Your task to perform on an android device: turn notification dots off Image 0: 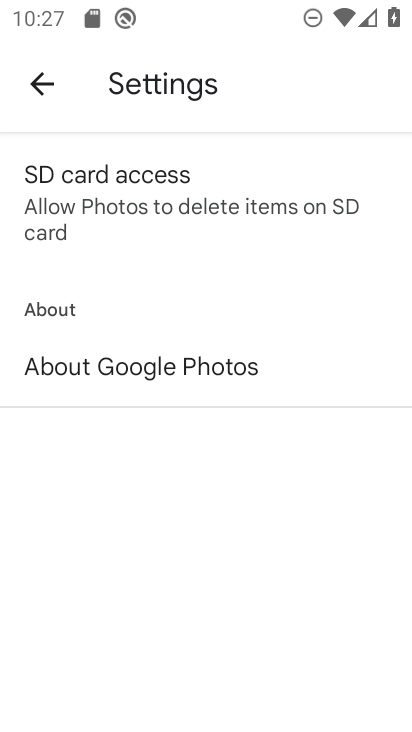
Step 0: press home button
Your task to perform on an android device: turn notification dots off Image 1: 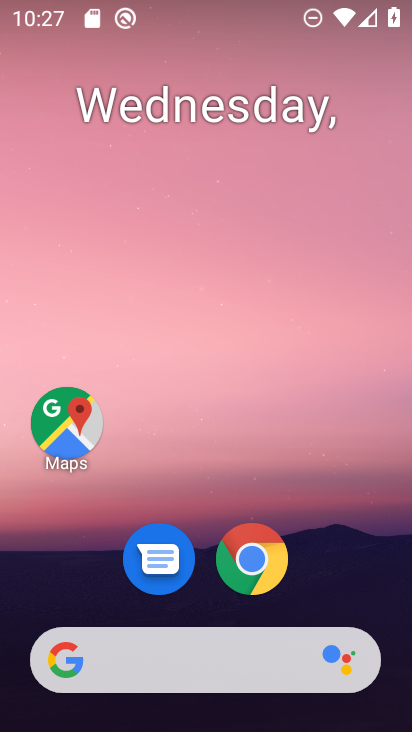
Step 1: drag from (334, 586) to (352, 296)
Your task to perform on an android device: turn notification dots off Image 2: 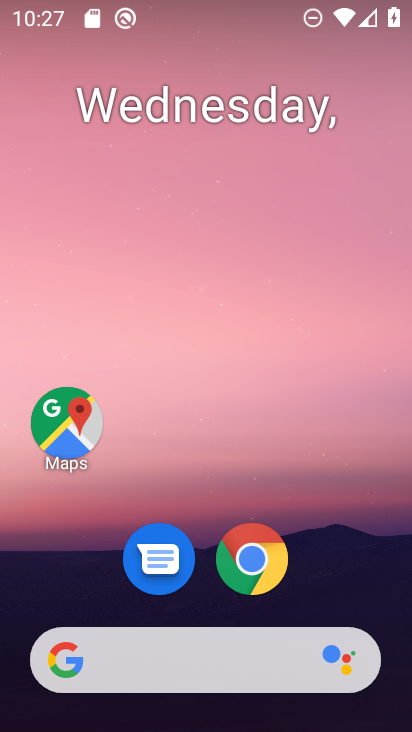
Step 2: drag from (370, 482) to (379, 106)
Your task to perform on an android device: turn notification dots off Image 3: 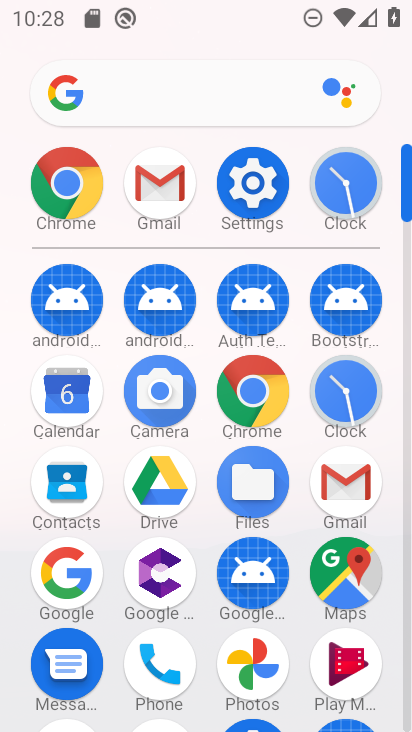
Step 3: click (251, 204)
Your task to perform on an android device: turn notification dots off Image 4: 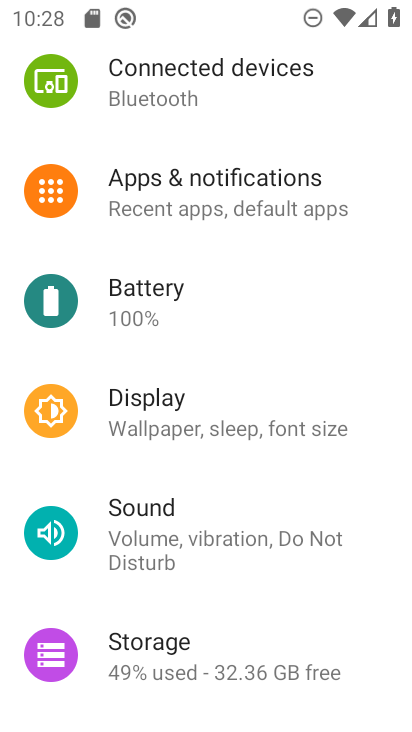
Step 4: drag from (347, 333) to (355, 420)
Your task to perform on an android device: turn notification dots off Image 5: 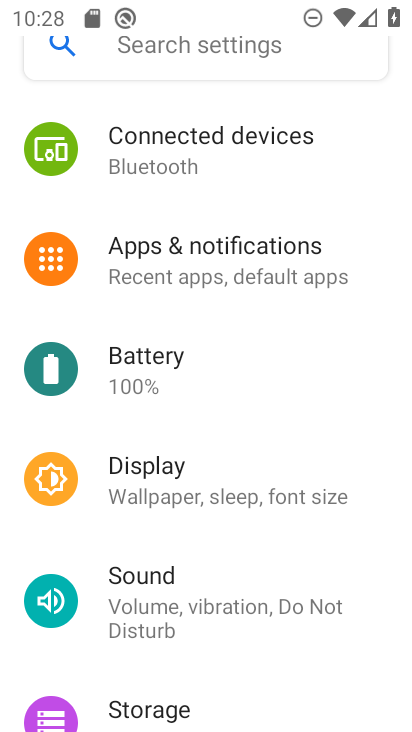
Step 5: drag from (376, 294) to (375, 392)
Your task to perform on an android device: turn notification dots off Image 6: 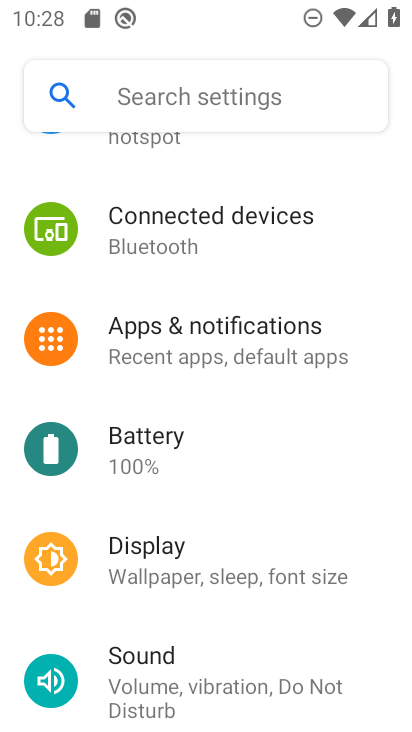
Step 6: drag from (364, 278) to (364, 366)
Your task to perform on an android device: turn notification dots off Image 7: 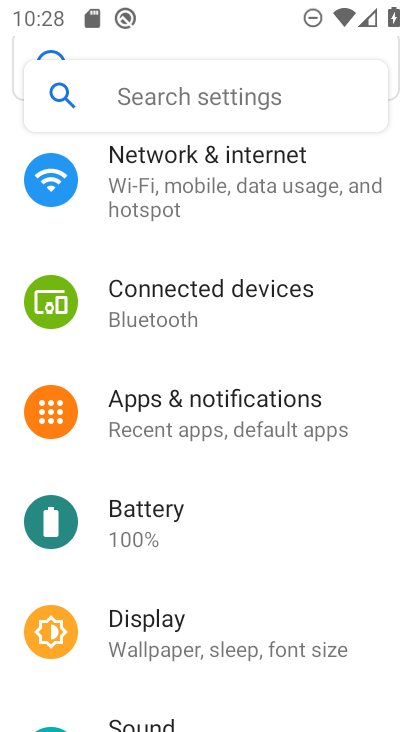
Step 7: drag from (370, 270) to (383, 407)
Your task to perform on an android device: turn notification dots off Image 8: 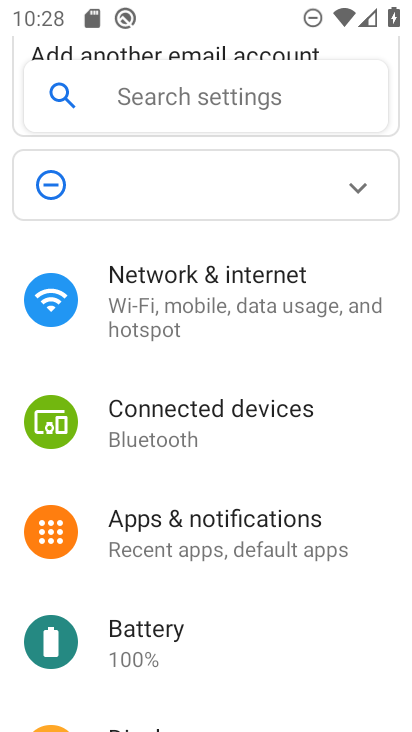
Step 8: click (303, 553)
Your task to perform on an android device: turn notification dots off Image 9: 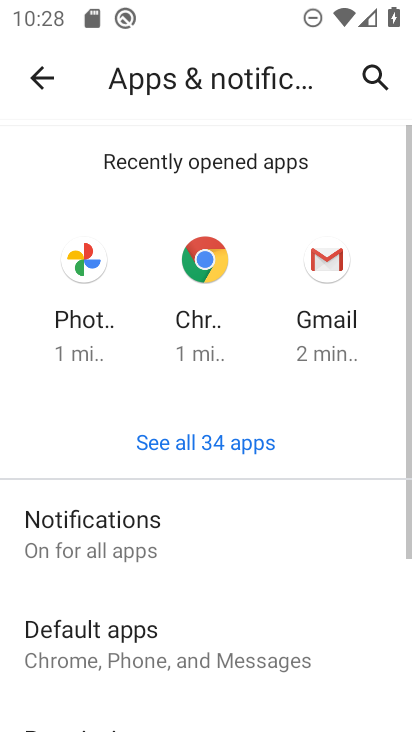
Step 9: drag from (346, 561) to (347, 419)
Your task to perform on an android device: turn notification dots off Image 10: 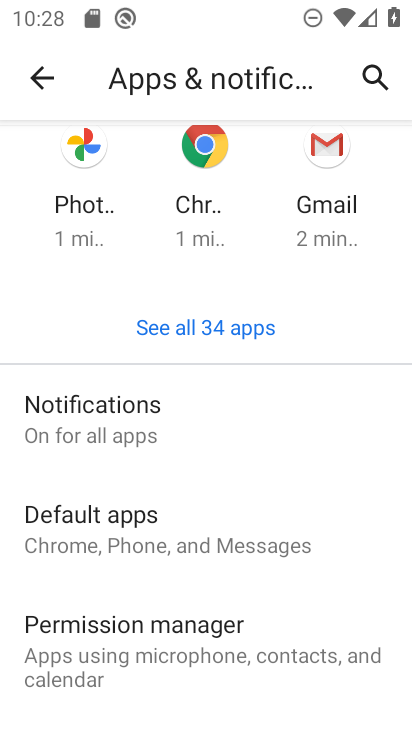
Step 10: click (220, 415)
Your task to perform on an android device: turn notification dots off Image 11: 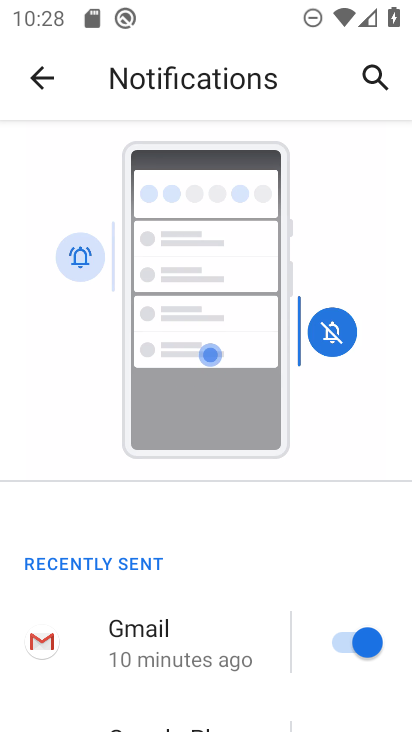
Step 11: drag from (326, 557) to (326, 426)
Your task to perform on an android device: turn notification dots off Image 12: 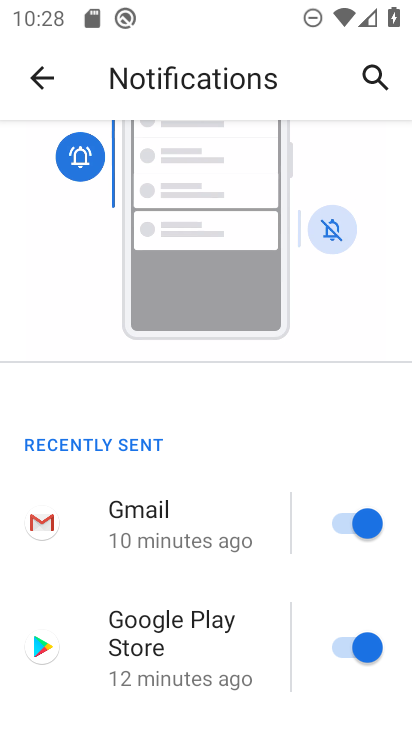
Step 12: drag from (270, 614) to (261, 441)
Your task to perform on an android device: turn notification dots off Image 13: 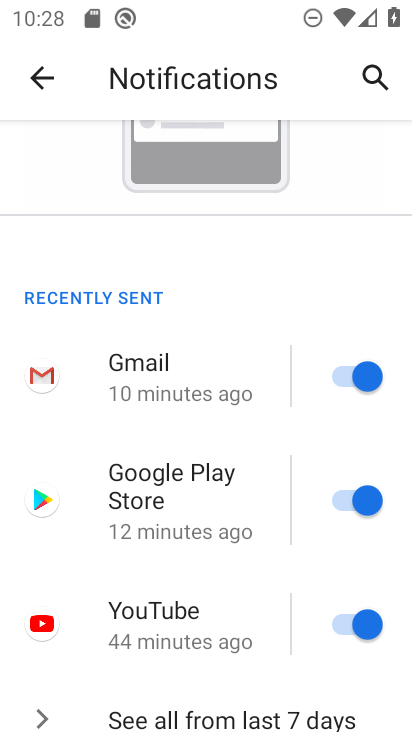
Step 13: drag from (252, 595) to (277, 446)
Your task to perform on an android device: turn notification dots off Image 14: 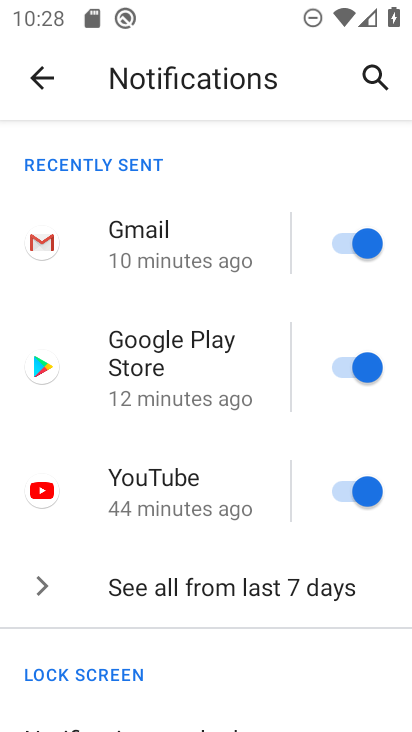
Step 14: drag from (276, 637) to (280, 496)
Your task to perform on an android device: turn notification dots off Image 15: 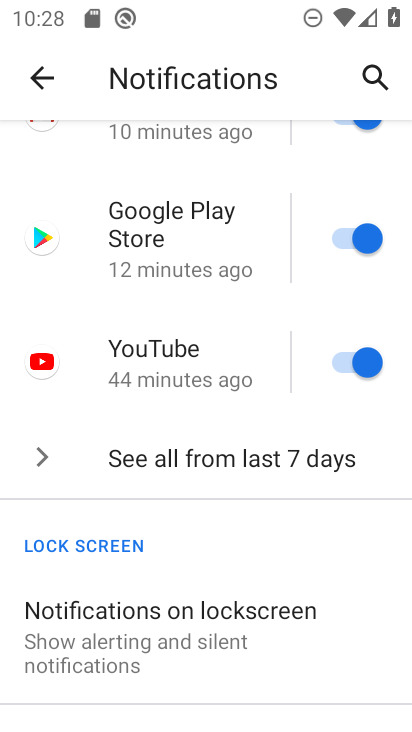
Step 15: drag from (298, 655) to (291, 462)
Your task to perform on an android device: turn notification dots off Image 16: 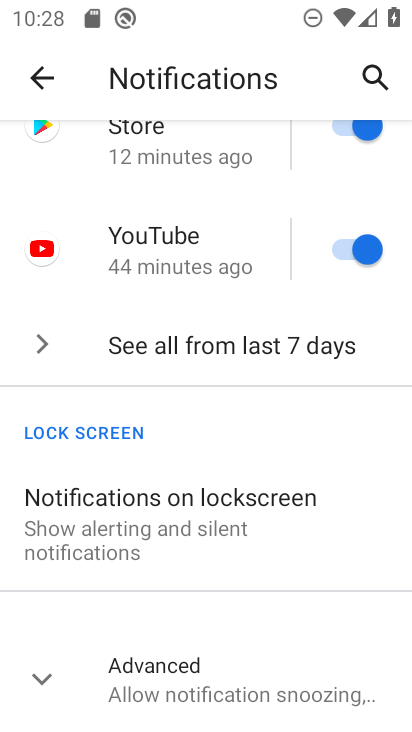
Step 16: drag from (301, 641) to (300, 502)
Your task to perform on an android device: turn notification dots off Image 17: 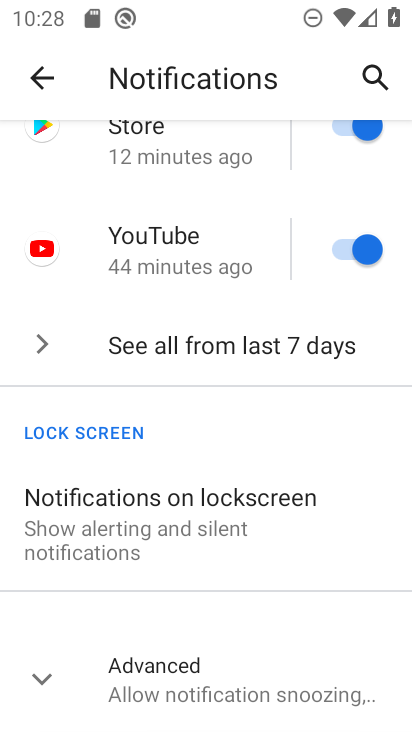
Step 17: click (253, 670)
Your task to perform on an android device: turn notification dots off Image 18: 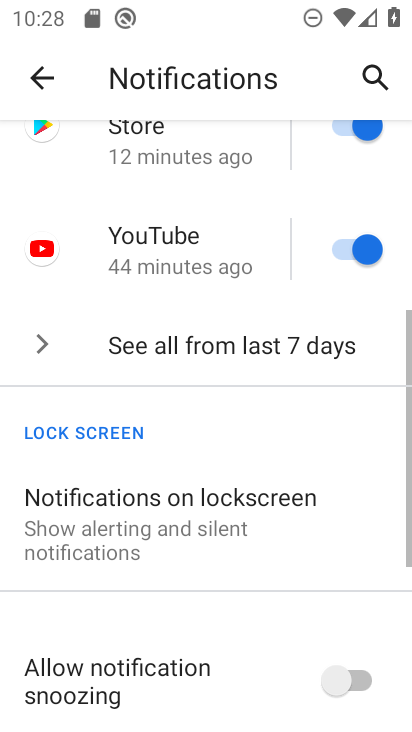
Step 18: drag from (253, 672) to (252, 515)
Your task to perform on an android device: turn notification dots off Image 19: 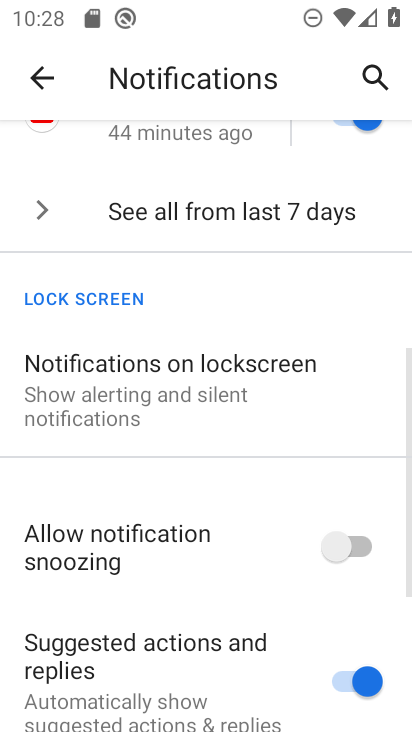
Step 19: drag from (290, 600) to (292, 503)
Your task to perform on an android device: turn notification dots off Image 20: 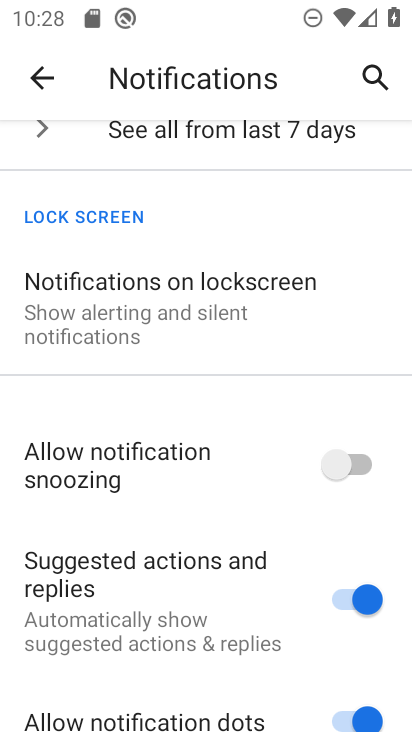
Step 20: drag from (295, 693) to (290, 544)
Your task to perform on an android device: turn notification dots off Image 21: 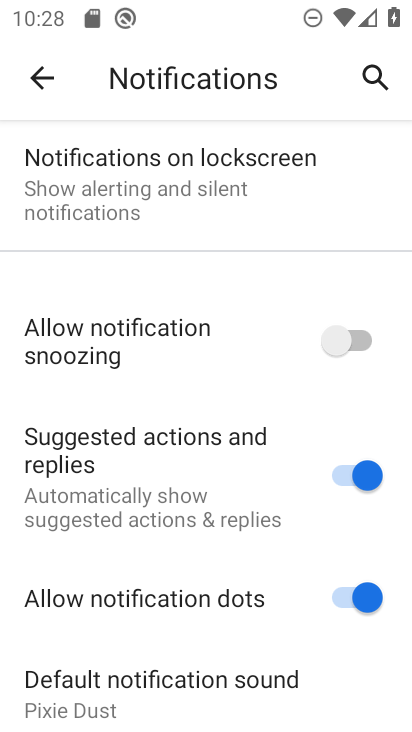
Step 21: click (342, 610)
Your task to perform on an android device: turn notification dots off Image 22: 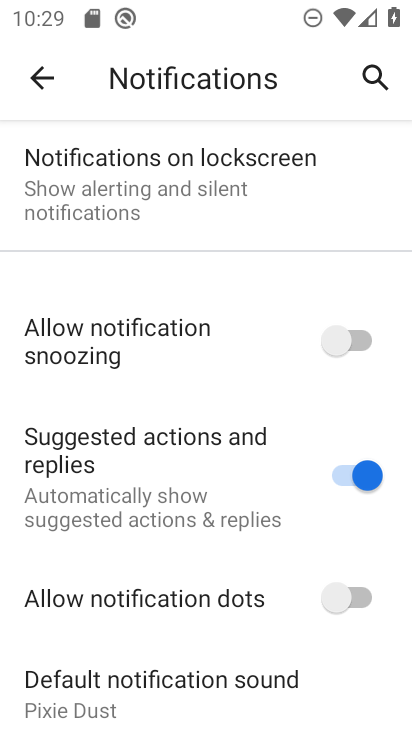
Step 22: task complete